Your task to perform on an android device: turn on javascript in the chrome app Image 0: 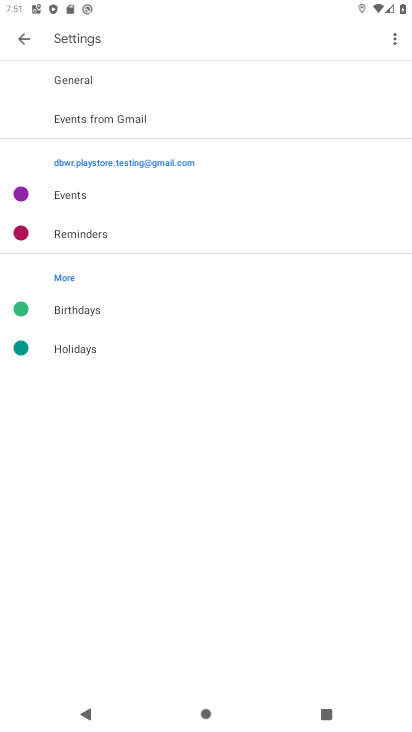
Step 0: press back button
Your task to perform on an android device: turn on javascript in the chrome app Image 1: 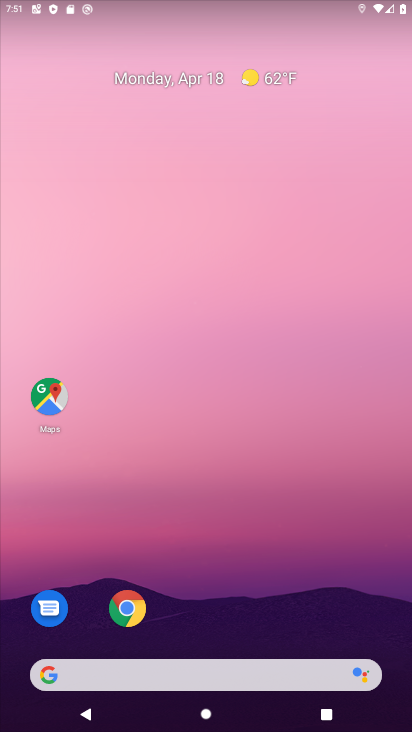
Step 1: click (132, 621)
Your task to perform on an android device: turn on javascript in the chrome app Image 2: 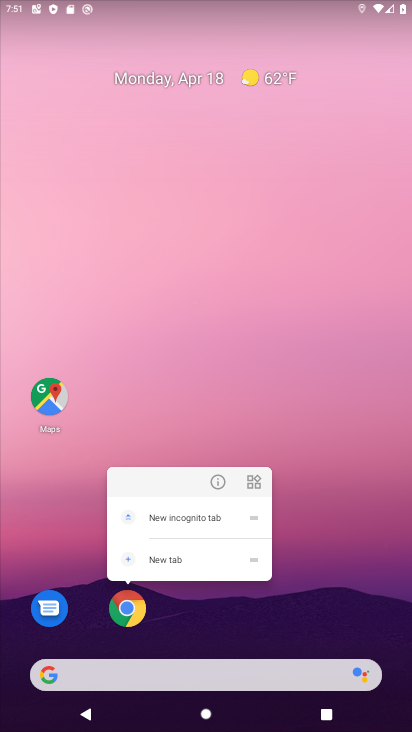
Step 2: click (127, 615)
Your task to perform on an android device: turn on javascript in the chrome app Image 3: 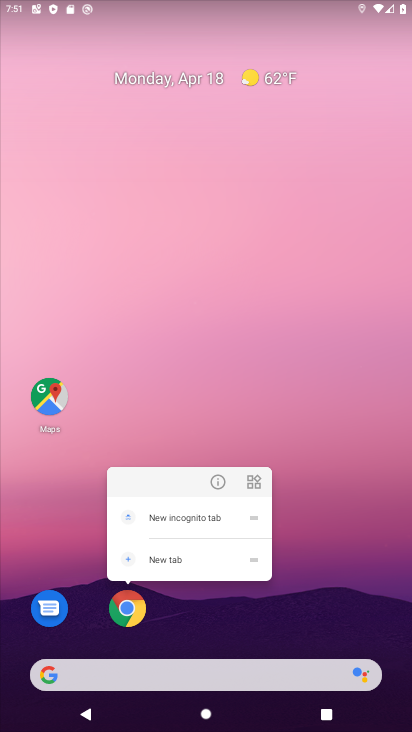
Step 3: click (127, 615)
Your task to perform on an android device: turn on javascript in the chrome app Image 4: 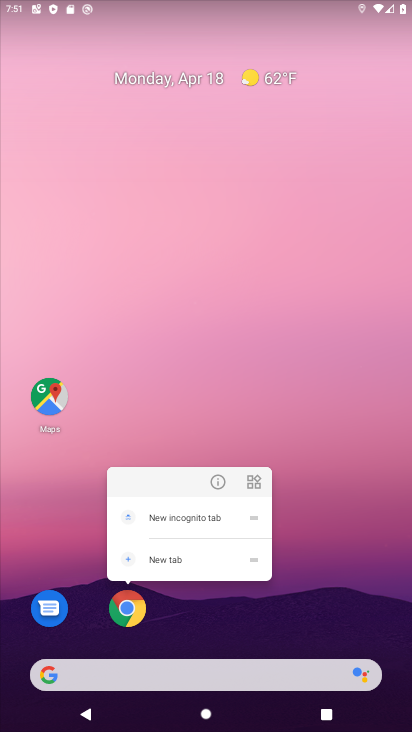
Step 4: click (127, 615)
Your task to perform on an android device: turn on javascript in the chrome app Image 5: 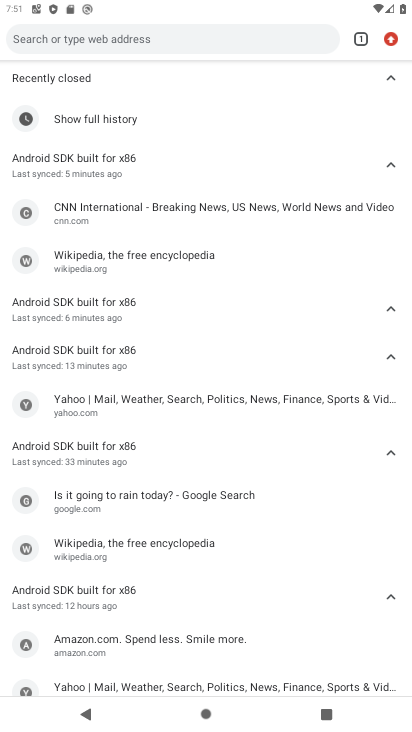
Step 5: click (396, 39)
Your task to perform on an android device: turn on javascript in the chrome app Image 6: 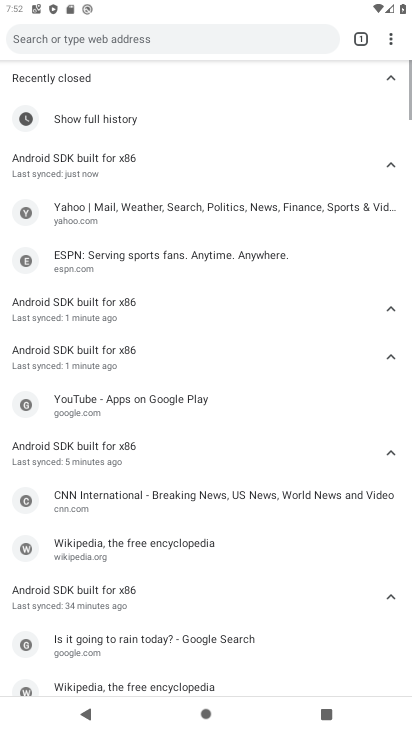
Step 6: drag from (396, 39) to (285, 371)
Your task to perform on an android device: turn on javascript in the chrome app Image 7: 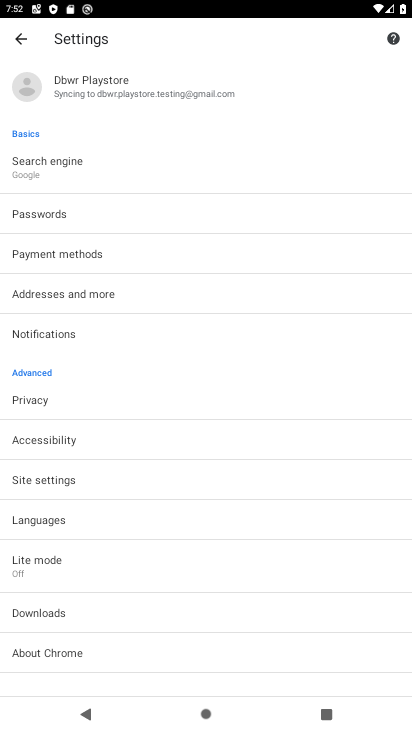
Step 7: click (45, 487)
Your task to perform on an android device: turn on javascript in the chrome app Image 8: 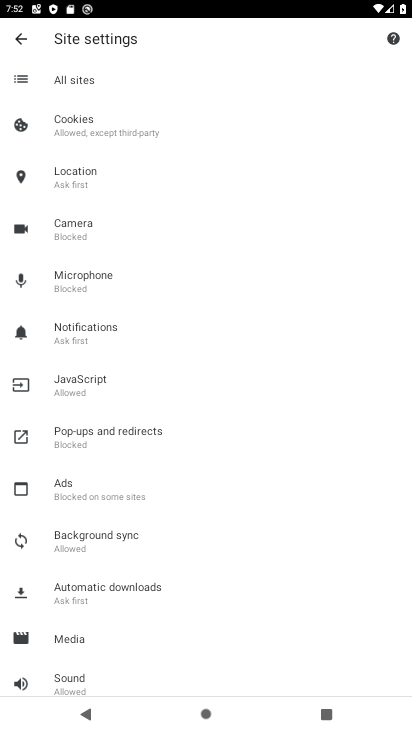
Step 8: click (104, 378)
Your task to perform on an android device: turn on javascript in the chrome app Image 9: 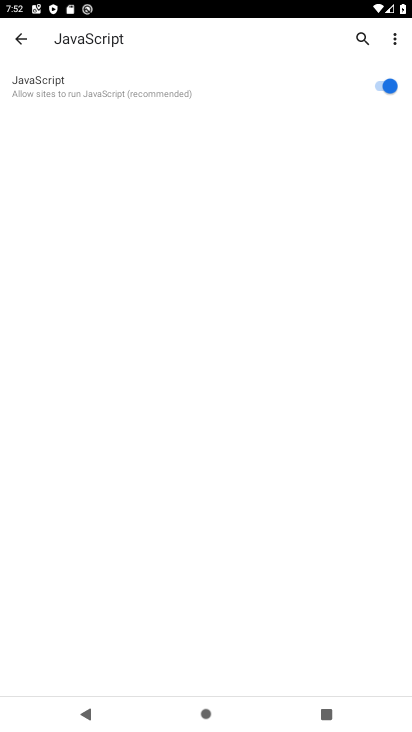
Step 9: task complete